Your task to perform on an android device: Open Google Maps and go to "Timeline" Image 0: 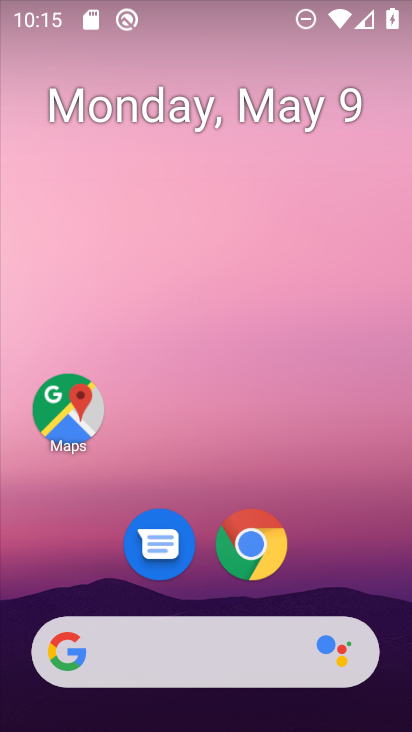
Step 0: click (62, 401)
Your task to perform on an android device: Open Google Maps and go to "Timeline" Image 1: 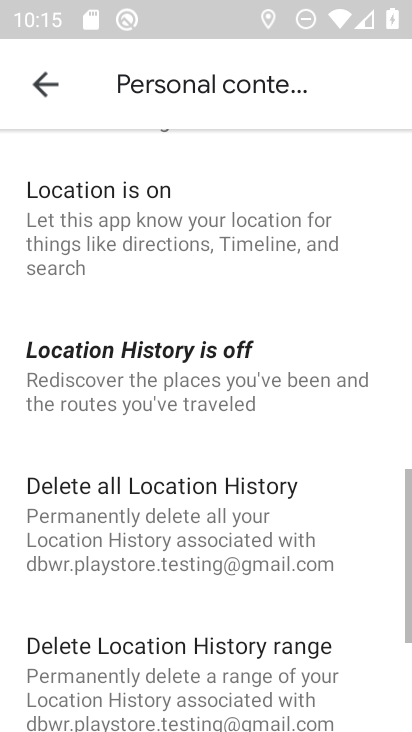
Step 1: click (38, 91)
Your task to perform on an android device: Open Google Maps and go to "Timeline" Image 2: 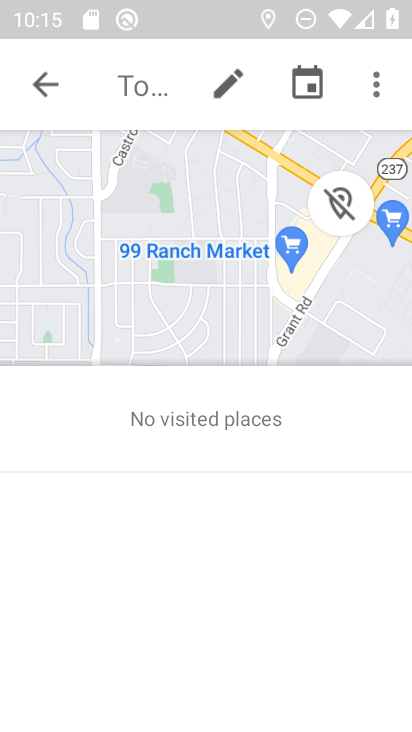
Step 2: click (38, 91)
Your task to perform on an android device: Open Google Maps and go to "Timeline" Image 3: 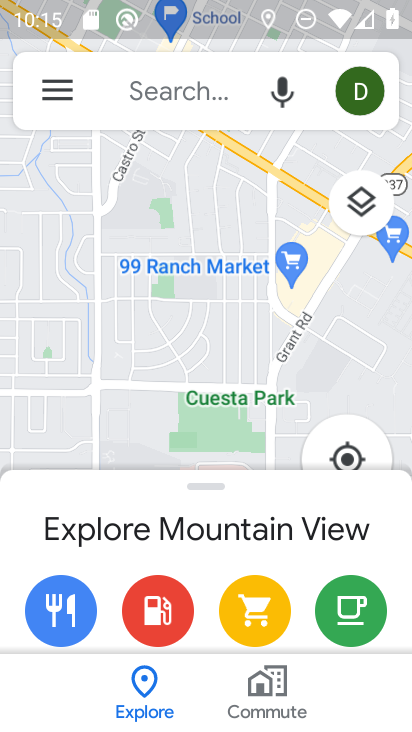
Step 3: click (56, 90)
Your task to perform on an android device: Open Google Maps and go to "Timeline" Image 4: 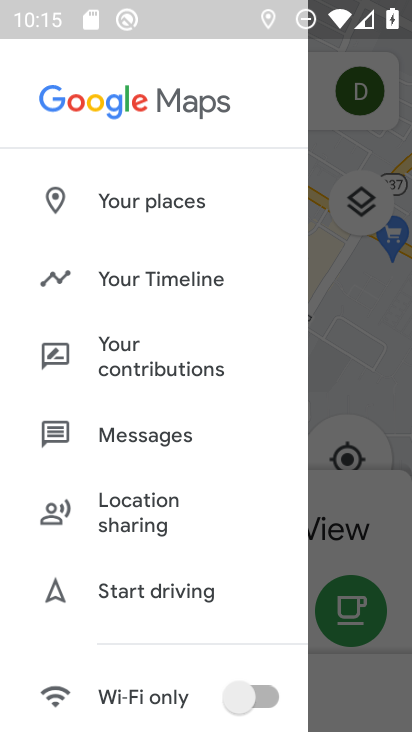
Step 4: click (123, 277)
Your task to perform on an android device: Open Google Maps and go to "Timeline" Image 5: 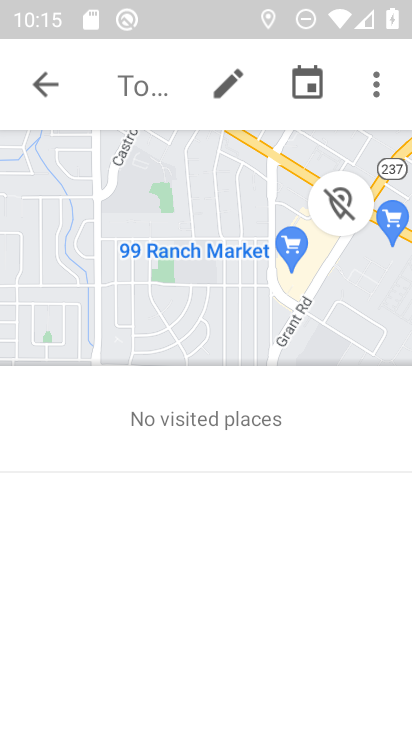
Step 5: task complete